Your task to perform on an android device: open a bookmark in the chrome app Image 0: 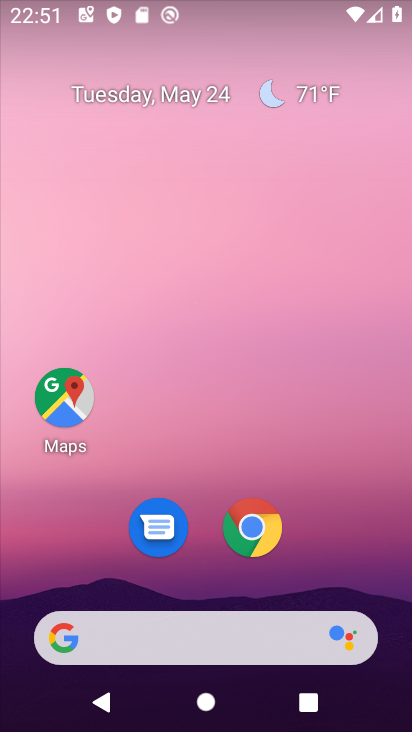
Step 0: click (266, 525)
Your task to perform on an android device: open a bookmark in the chrome app Image 1: 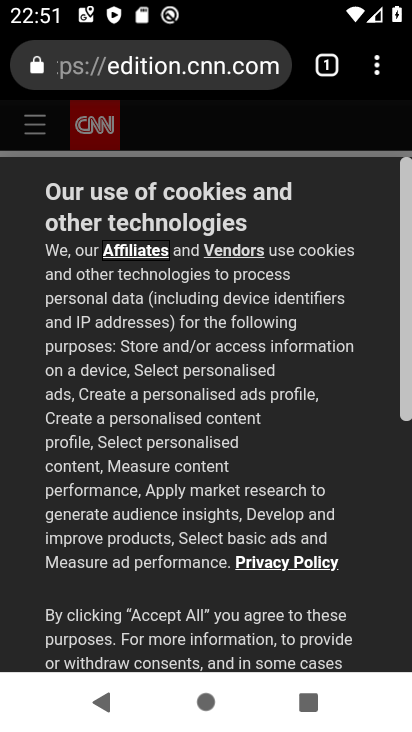
Step 1: click (371, 61)
Your task to perform on an android device: open a bookmark in the chrome app Image 2: 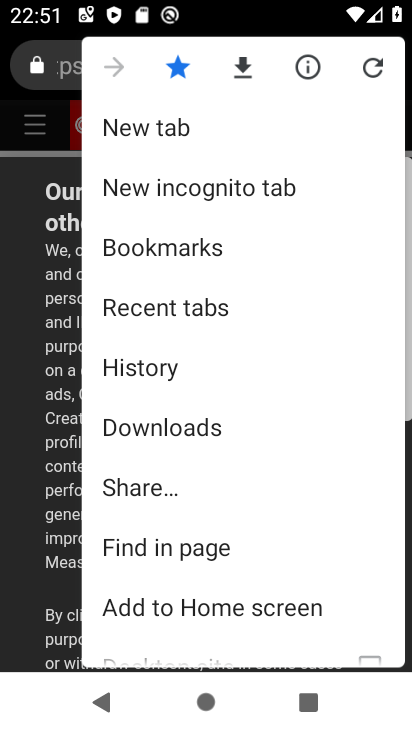
Step 2: click (180, 251)
Your task to perform on an android device: open a bookmark in the chrome app Image 3: 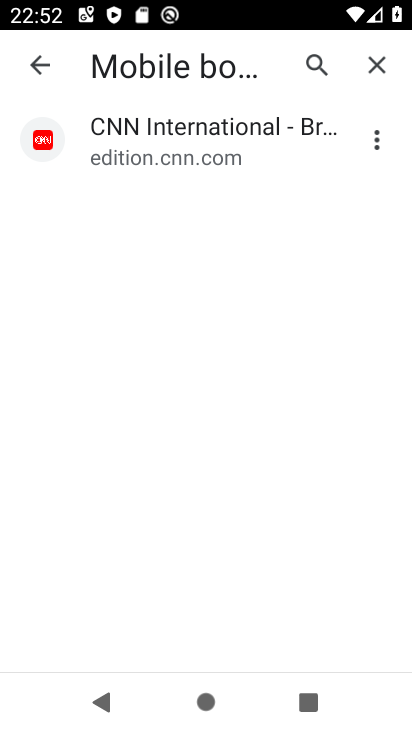
Step 3: click (198, 145)
Your task to perform on an android device: open a bookmark in the chrome app Image 4: 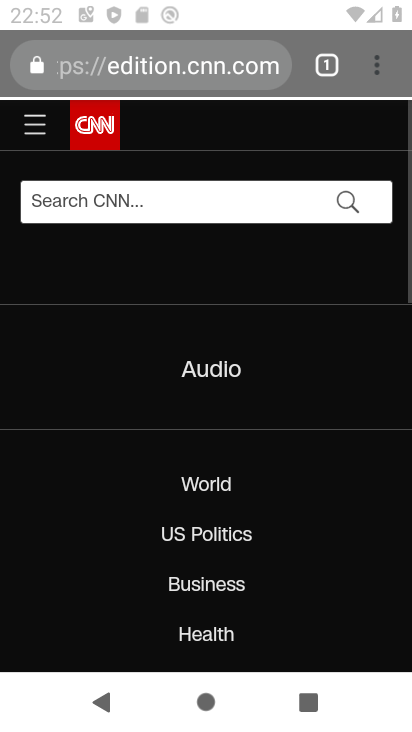
Step 4: click (206, 149)
Your task to perform on an android device: open a bookmark in the chrome app Image 5: 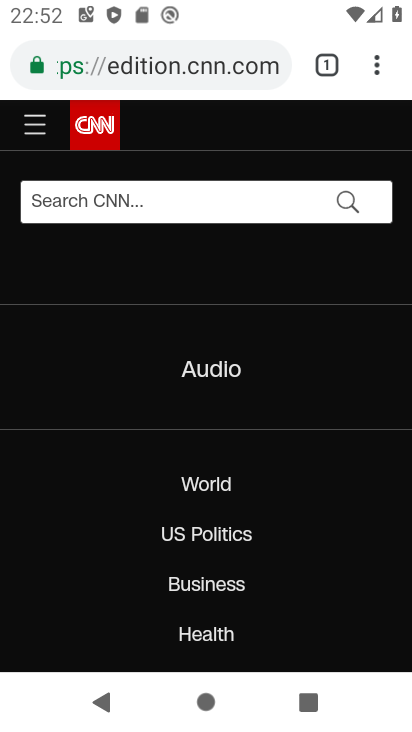
Step 5: task complete